Your task to perform on an android device: turn off airplane mode Image 0: 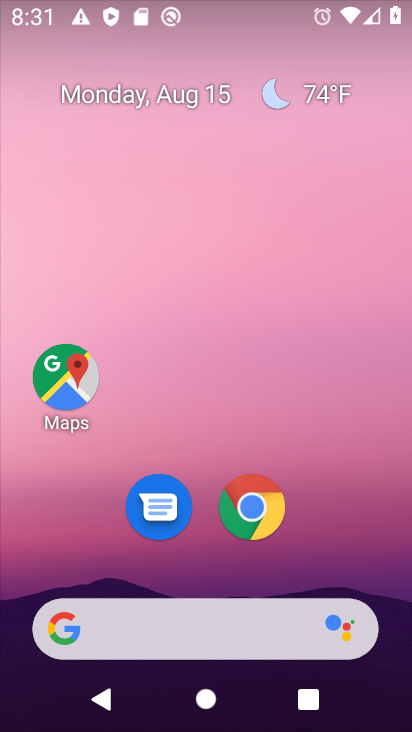
Step 0: drag from (320, 530) to (362, 0)
Your task to perform on an android device: turn off airplane mode Image 1: 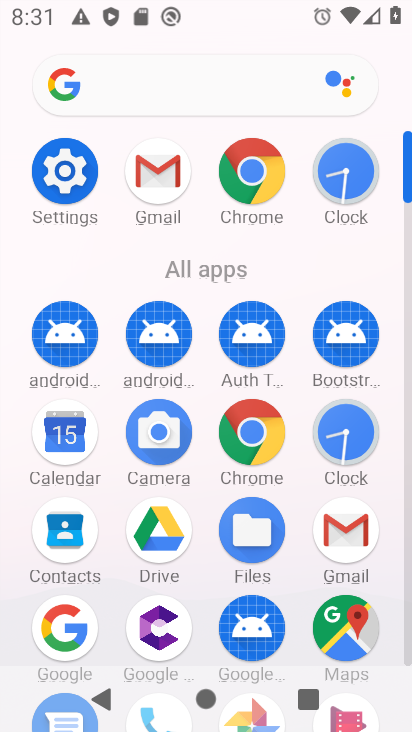
Step 1: click (45, 157)
Your task to perform on an android device: turn off airplane mode Image 2: 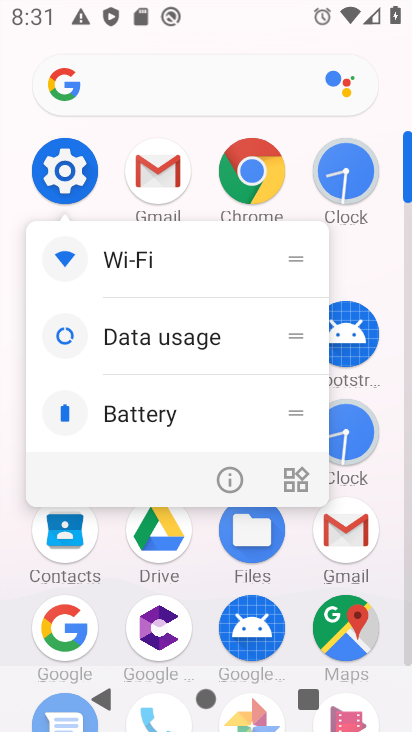
Step 2: click (47, 156)
Your task to perform on an android device: turn off airplane mode Image 3: 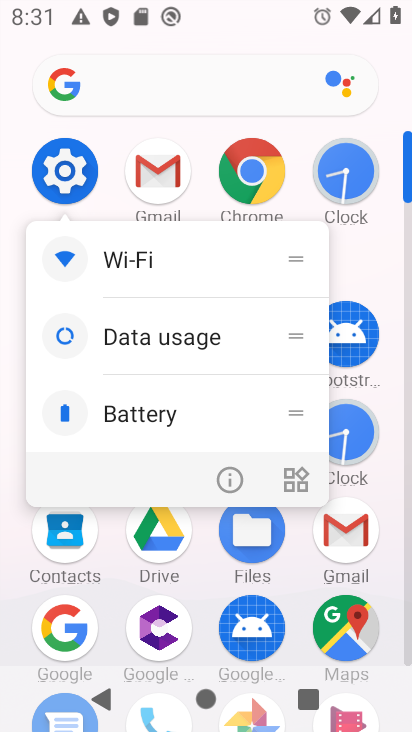
Step 3: click (63, 172)
Your task to perform on an android device: turn off airplane mode Image 4: 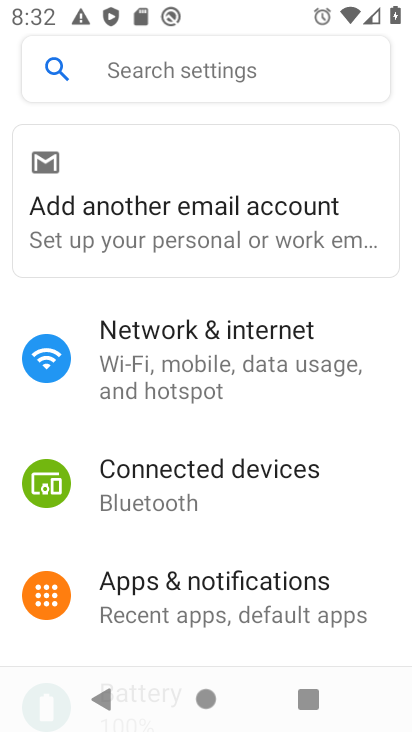
Step 4: click (220, 350)
Your task to perform on an android device: turn off airplane mode Image 5: 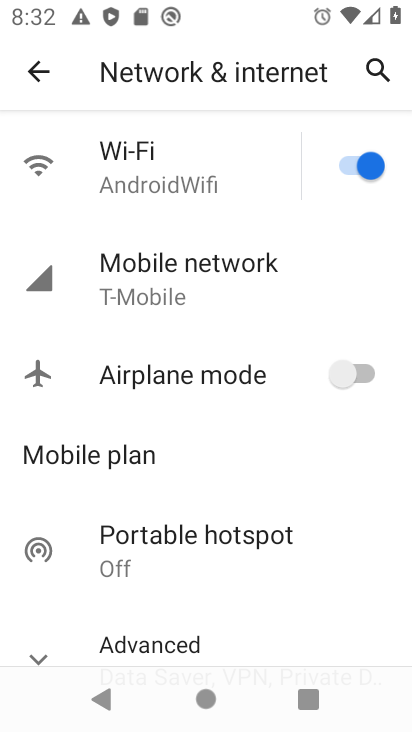
Step 5: task complete